Your task to perform on an android device: create a new album in the google photos Image 0: 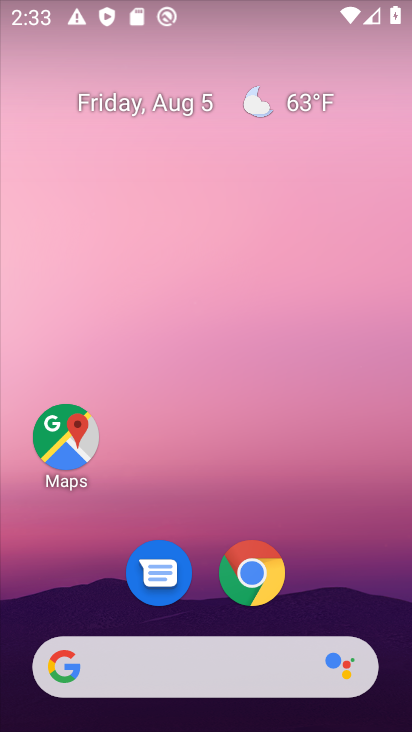
Step 0: drag from (384, 583) to (293, 153)
Your task to perform on an android device: create a new album in the google photos Image 1: 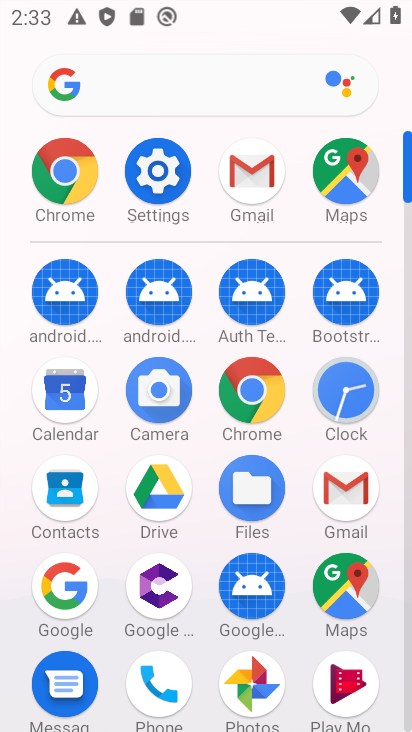
Step 1: click (258, 675)
Your task to perform on an android device: create a new album in the google photos Image 2: 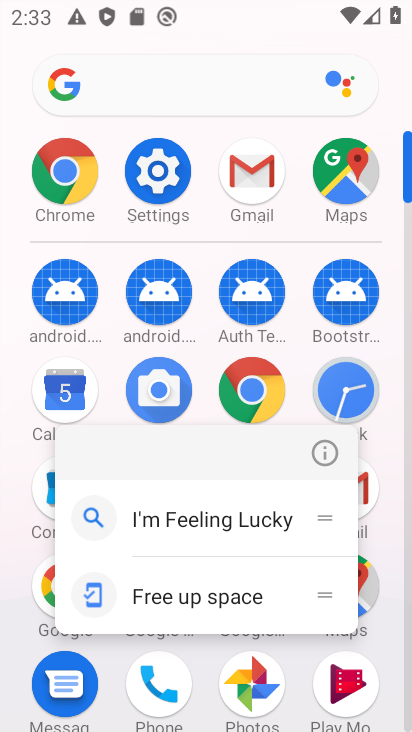
Step 2: click (250, 685)
Your task to perform on an android device: create a new album in the google photos Image 3: 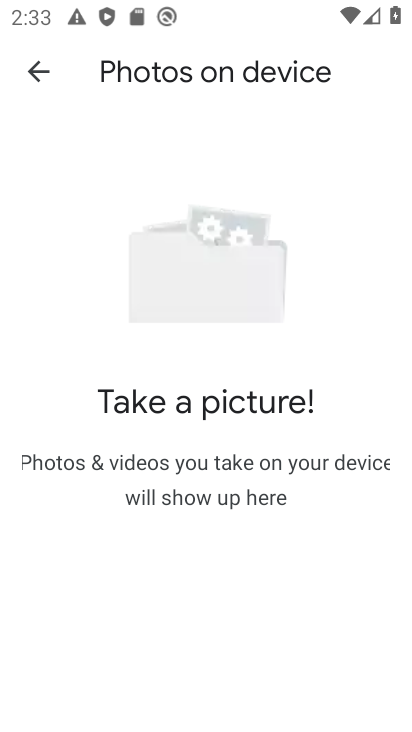
Step 3: click (34, 63)
Your task to perform on an android device: create a new album in the google photos Image 4: 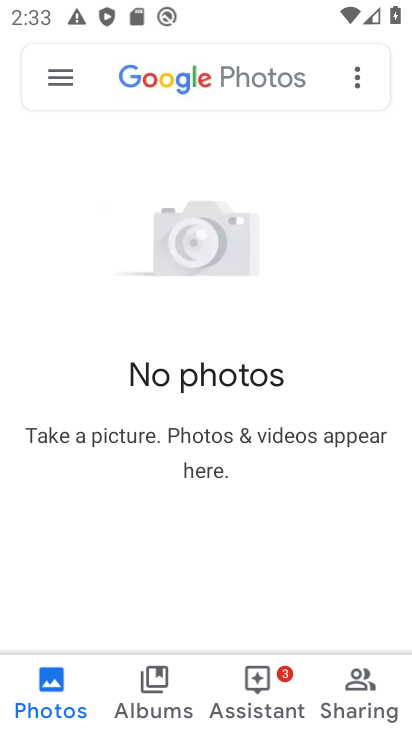
Step 4: click (262, 688)
Your task to perform on an android device: create a new album in the google photos Image 5: 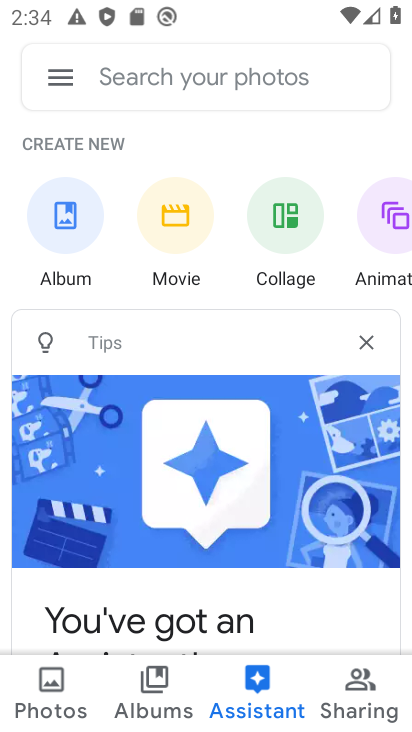
Step 5: click (81, 229)
Your task to perform on an android device: create a new album in the google photos Image 6: 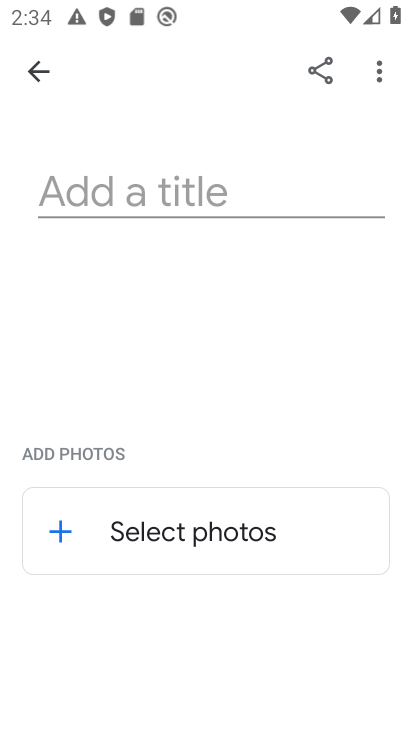
Step 6: click (271, 521)
Your task to perform on an android device: create a new album in the google photos Image 7: 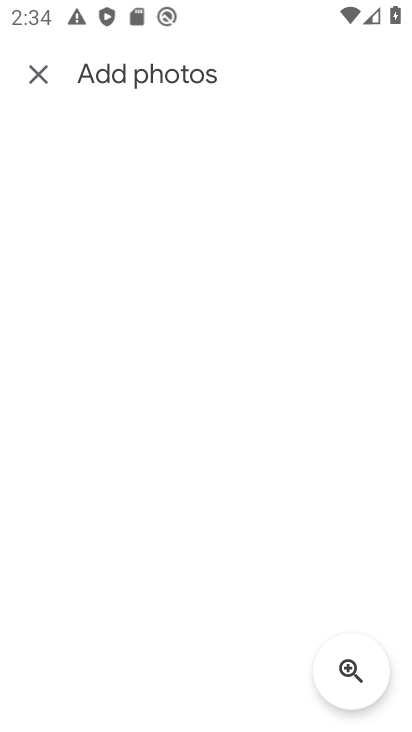
Step 7: task complete